Your task to perform on an android device: turn on location history Image 0: 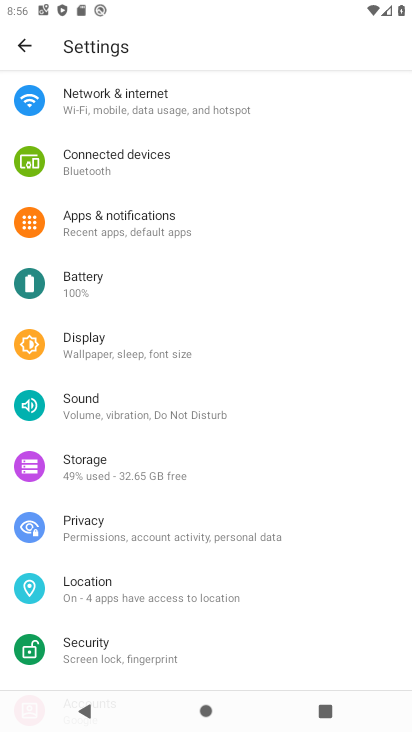
Step 0: click (92, 582)
Your task to perform on an android device: turn on location history Image 1: 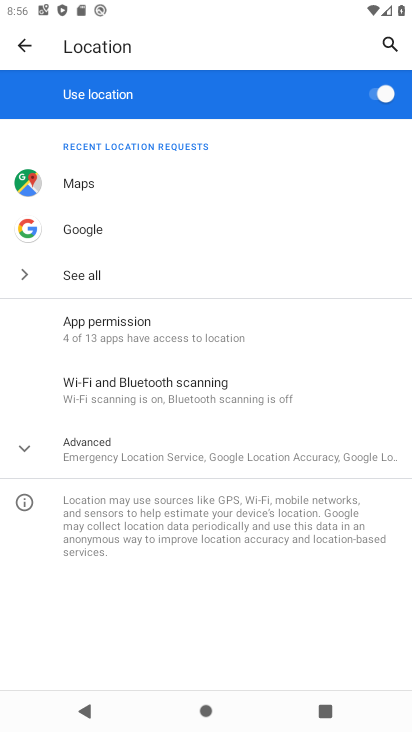
Step 1: click (93, 437)
Your task to perform on an android device: turn on location history Image 2: 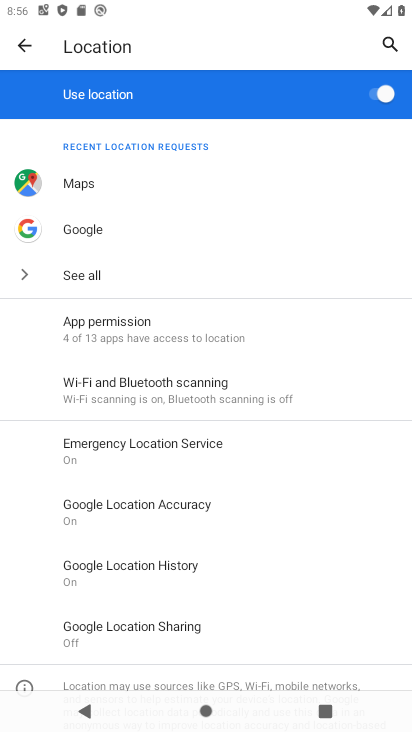
Step 2: click (151, 563)
Your task to perform on an android device: turn on location history Image 3: 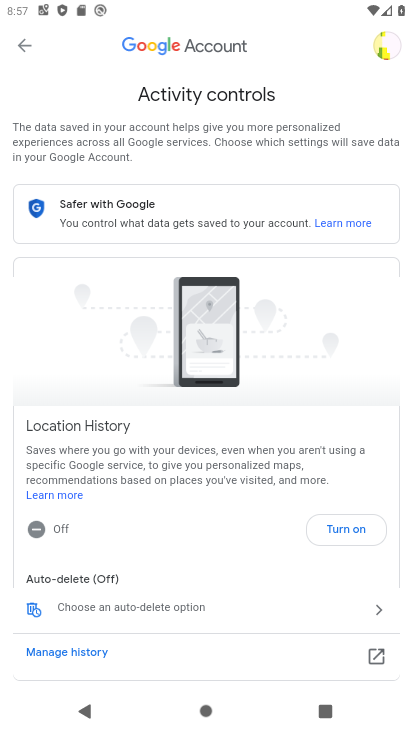
Step 3: click (341, 535)
Your task to perform on an android device: turn on location history Image 4: 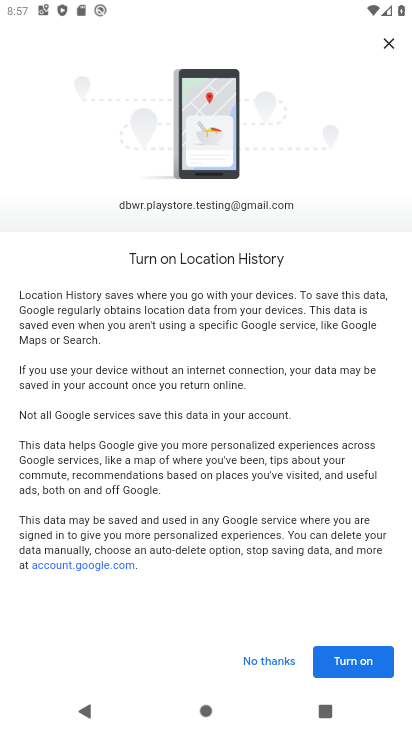
Step 4: click (336, 649)
Your task to perform on an android device: turn on location history Image 5: 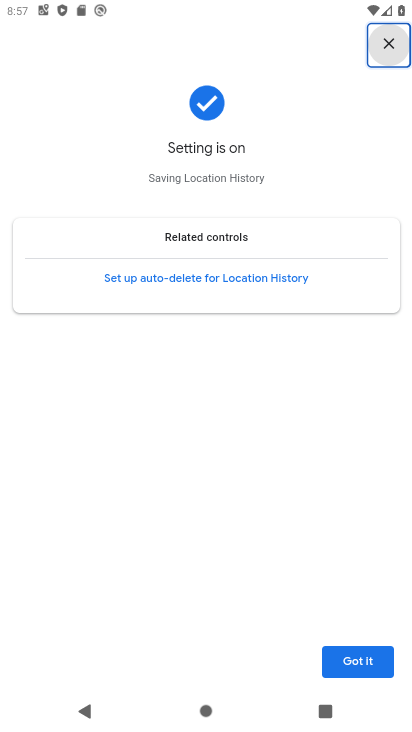
Step 5: click (342, 660)
Your task to perform on an android device: turn on location history Image 6: 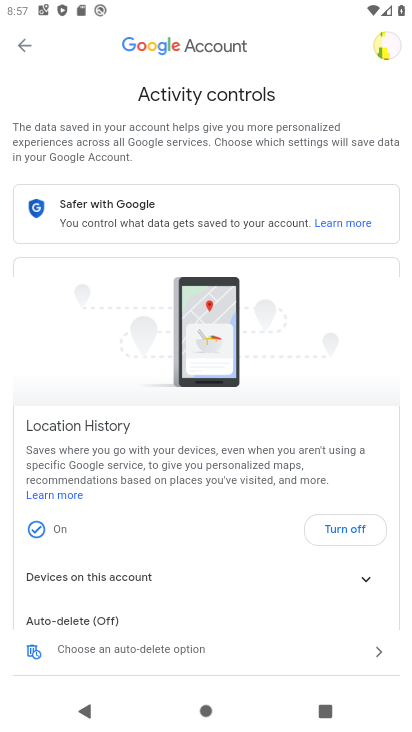
Step 6: task complete